Your task to perform on an android device: find which apps use the phone's location Image 0: 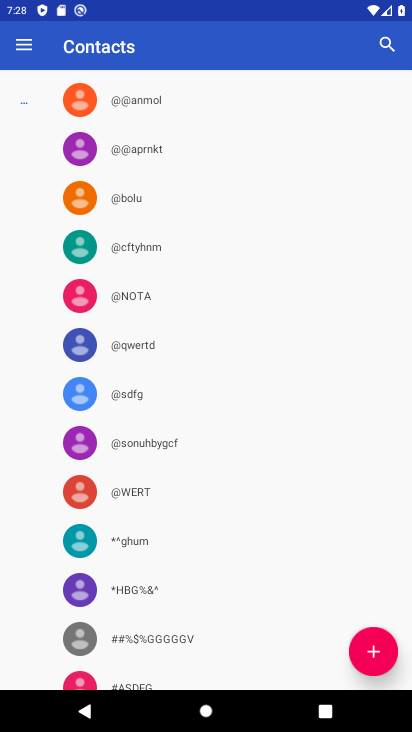
Step 0: press home button
Your task to perform on an android device: find which apps use the phone's location Image 1: 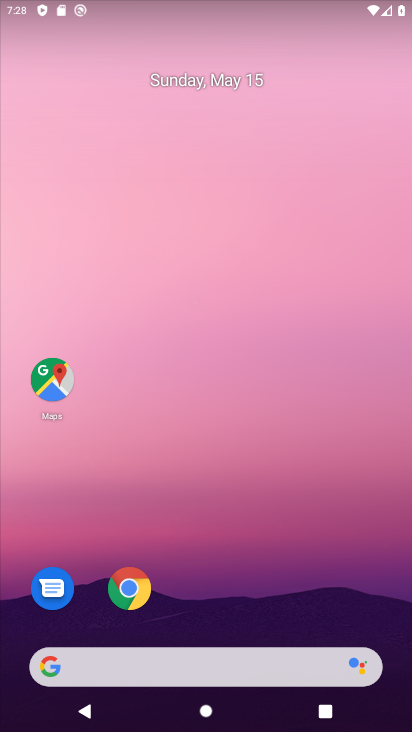
Step 1: drag from (330, 634) to (263, 25)
Your task to perform on an android device: find which apps use the phone's location Image 2: 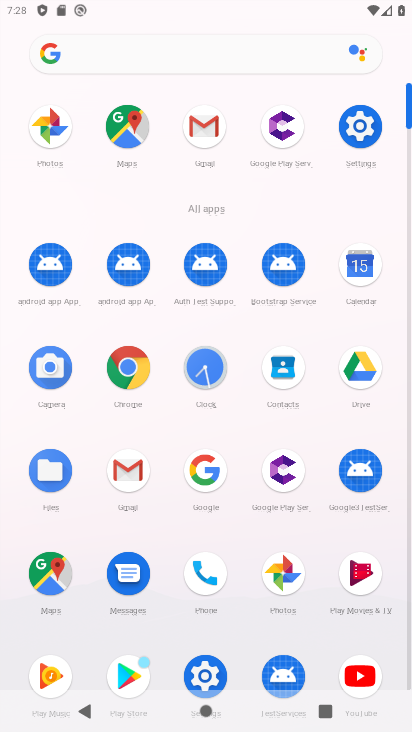
Step 2: click (210, 671)
Your task to perform on an android device: find which apps use the phone's location Image 3: 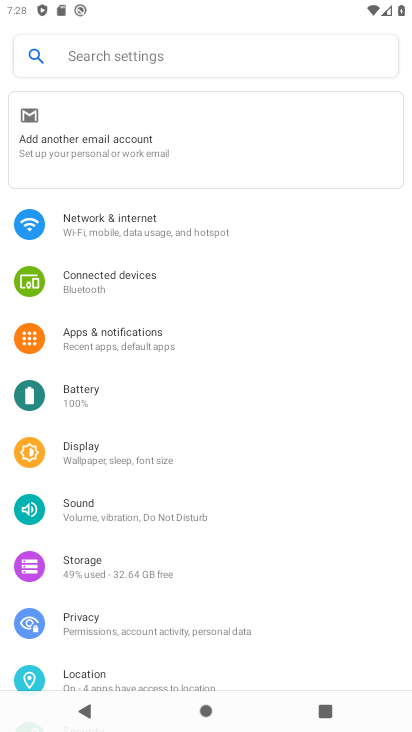
Step 3: click (92, 675)
Your task to perform on an android device: find which apps use the phone's location Image 4: 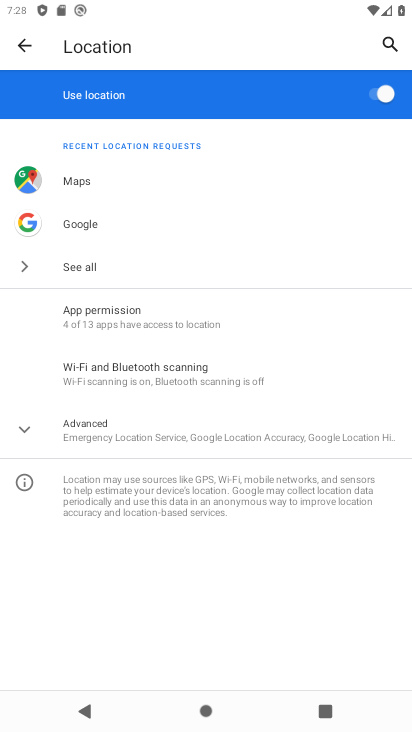
Step 4: click (109, 308)
Your task to perform on an android device: find which apps use the phone's location Image 5: 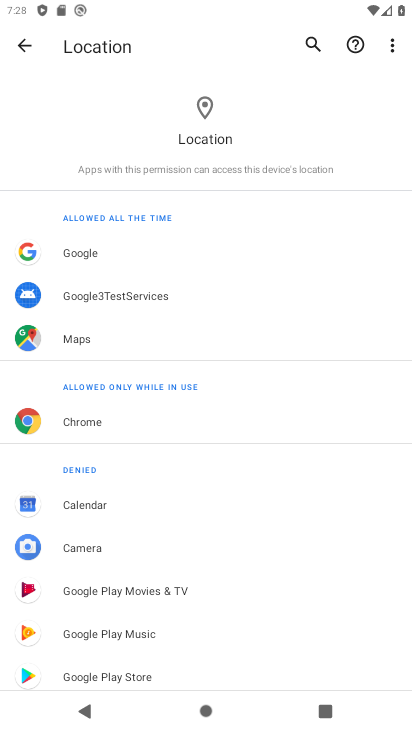
Step 5: drag from (140, 642) to (148, 258)
Your task to perform on an android device: find which apps use the phone's location Image 6: 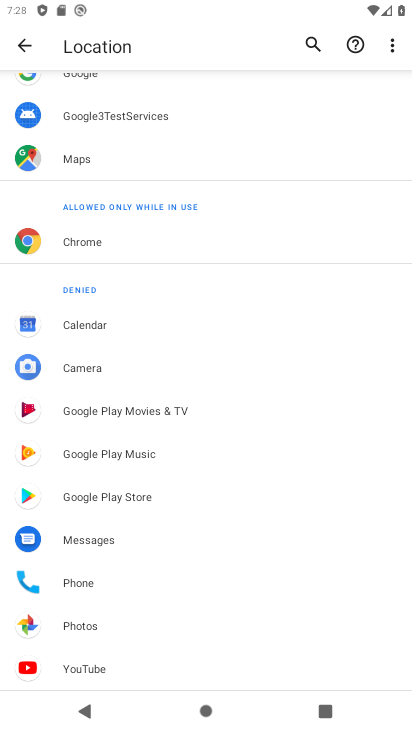
Step 6: click (99, 586)
Your task to perform on an android device: find which apps use the phone's location Image 7: 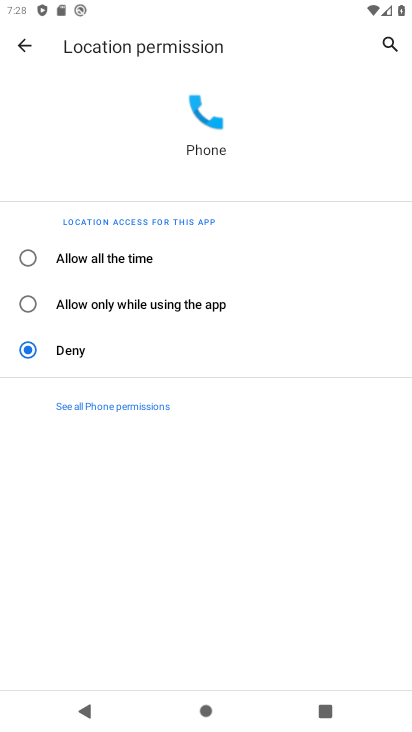
Step 7: click (88, 256)
Your task to perform on an android device: find which apps use the phone's location Image 8: 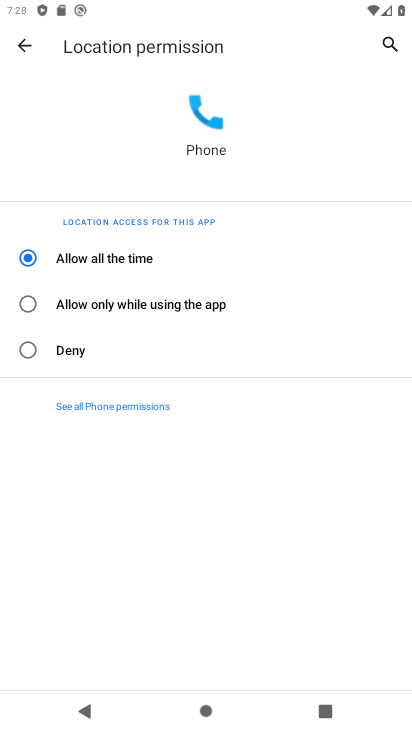
Step 8: task complete